Your task to perform on an android device: move an email to a new category in the gmail app Image 0: 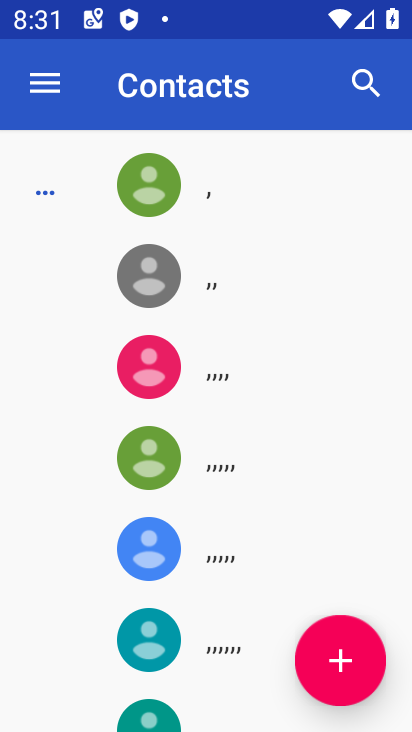
Step 0: press home button
Your task to perform on an android device: move an email to a new category in the gmail app Image 1: 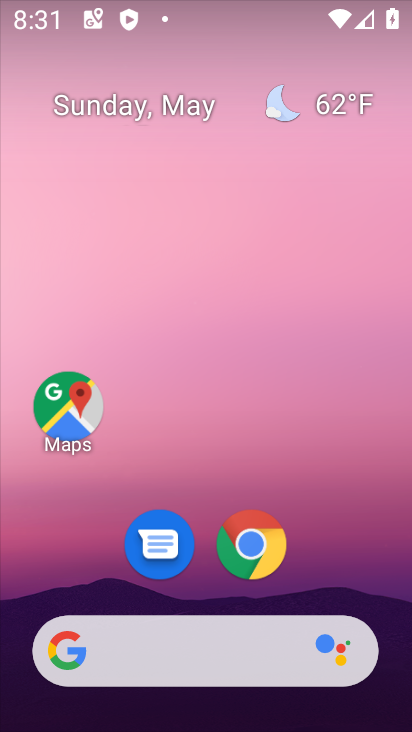
Step 1: drag from (360, 577) to (185, 715)
Your task to perform on an android device: move an email to a new category in the gmail app Image 2: 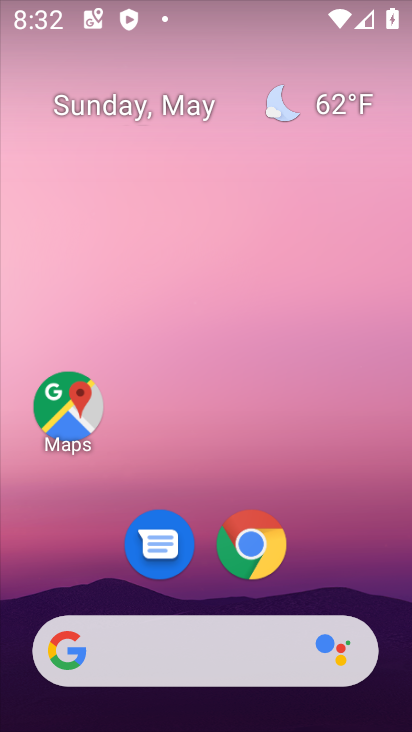
Step 2: drag from (344, 568) to (163, 123)
Your task to perform on an android device: move an email to a new category in the gmail app Image 3: 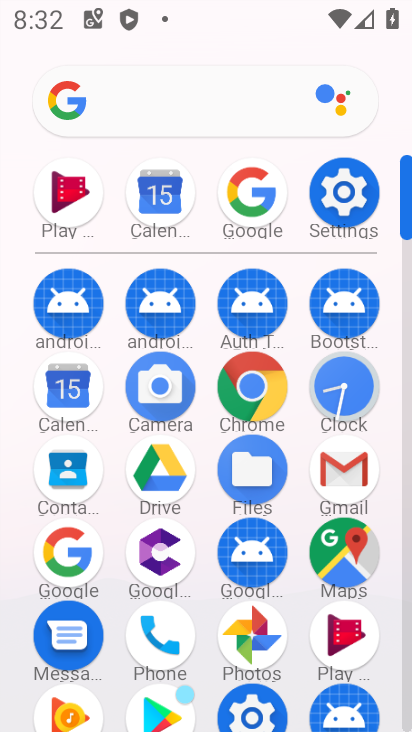
Step 3: click (328, 458)
Your task to perform on an android device: move an email to a new category in the gmail app Image 4: 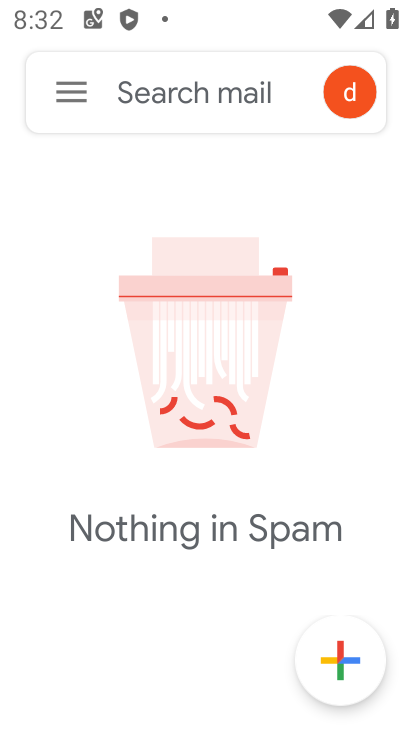
Step 4: click (70, 98)
Your task to perform on an android device: move an email to a new category in the gmail app Image 5: 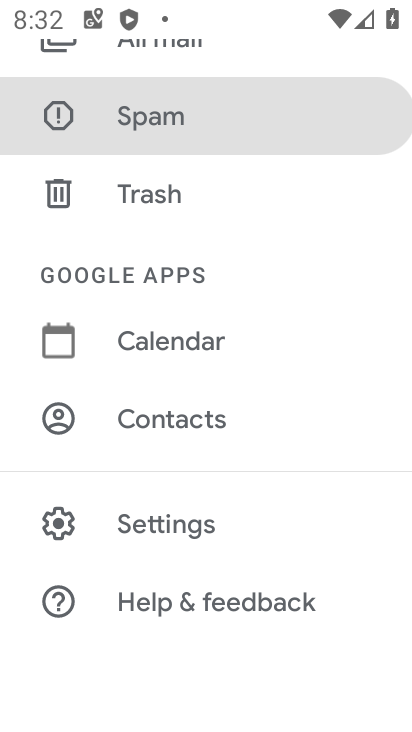
Step 5: drag from (244, 262) to (193, 688)
Your task to perform on an android device: move an email to a new category in the gmail app Image 6: 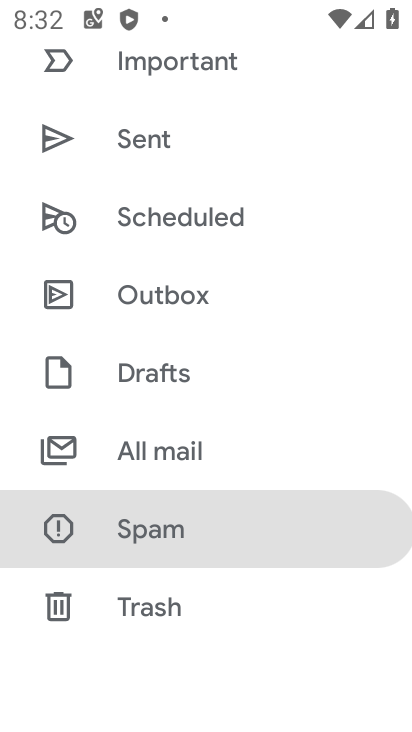
Step 6: click (166, 446)
Your task to perform on an android device: move an email to a new category in the gmail app Image 7: 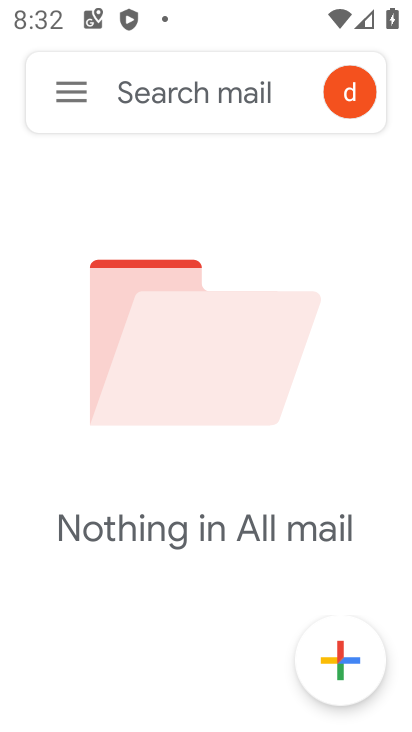
Step 7: task complete